Your task to perform on an android device: Search for pizza restaurants on Maps Image 0: 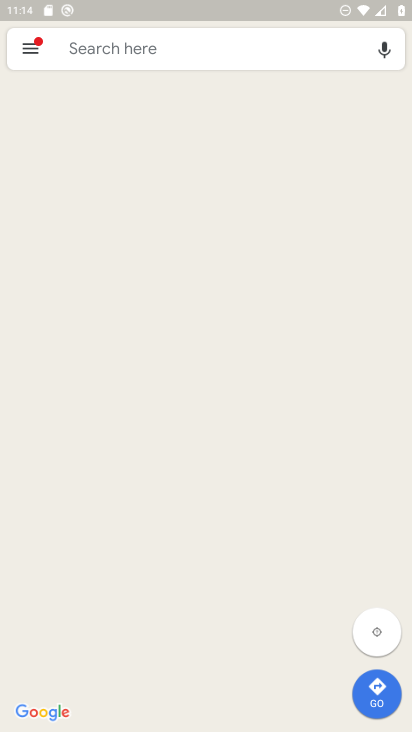
Step 0: press home button
Your task to perform on an android device: Search for pizza restaurants on Maps Image 1: 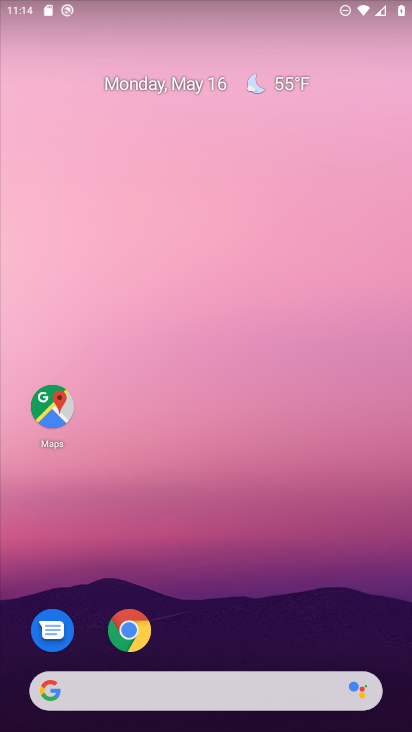
Step 1: click (52, 398)
Your task to perform on an android device: Search for pizza restaurants on Maps Image 2: 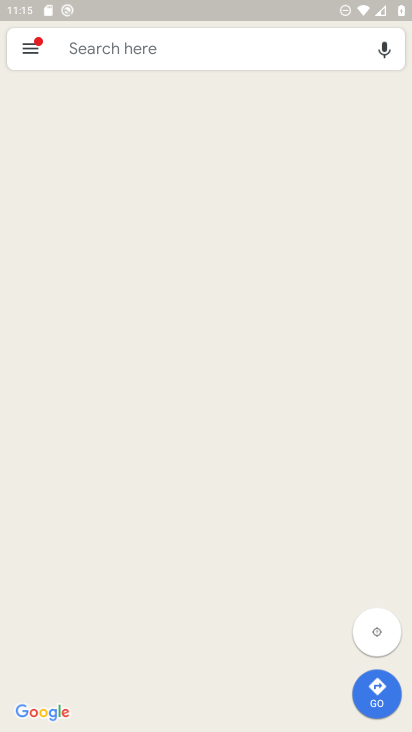
Step 2: click (192, 38)
Your task to perform on an android device: Search for pizza restaurants on Maps Image 3: 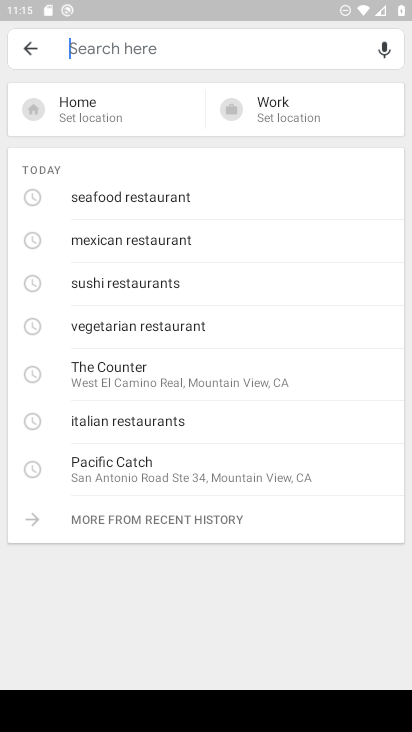
Step 3: type "pizza restaurants"
Your task to perform on an android device: Search for pizza restaurants on Maps Image 4: 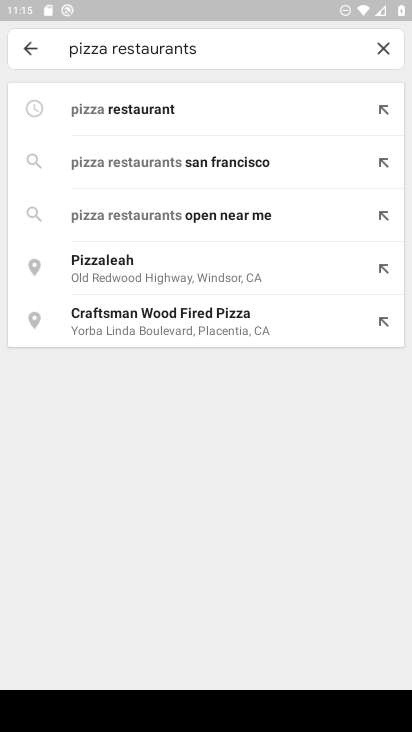
Step 4: click (230, 111)
Your task to perform on an android device: Search for pizza restaurants on Maps Image 5: 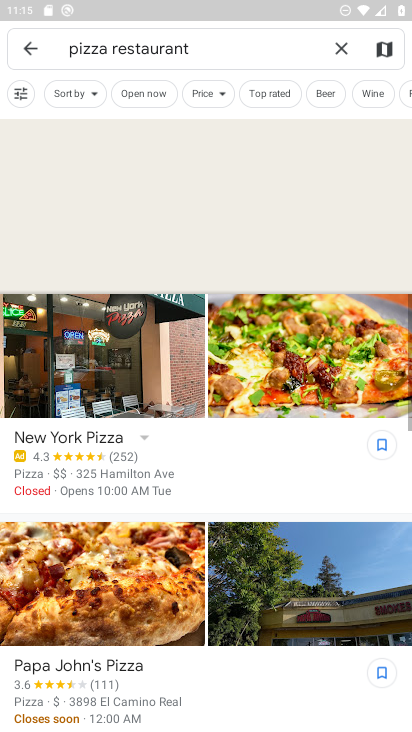
Step 5: task complete